Your task to perform on an android device: turn off translation in the chrome app Image 0: 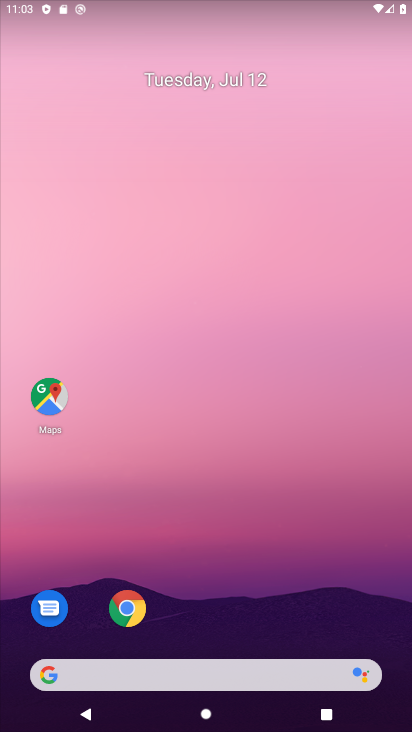
Step 0: click (137, 613)
Your task to perform on an android device: turn off translation in the chrome app Image 1: 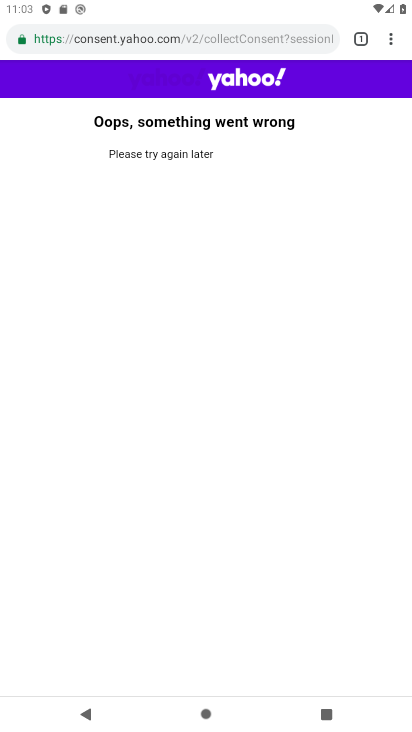
Step 1: click (400, 46)
Your task to perform on an android device: turn off translation in the chrome app Image 2: 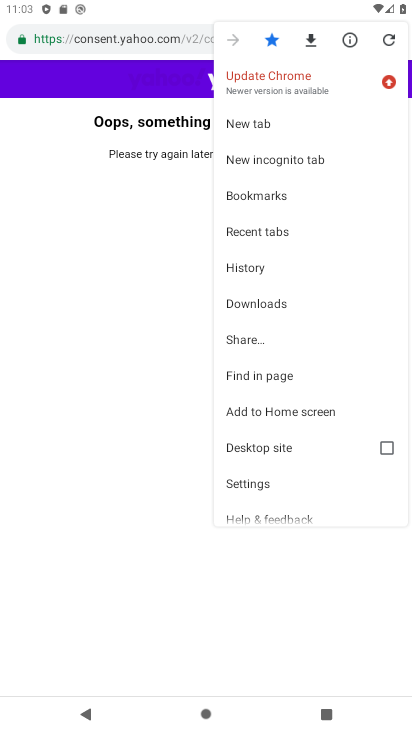
Step 2: click (250, 489)
Your task to perform on an android device: turn off translation in the chrome app Image 3: 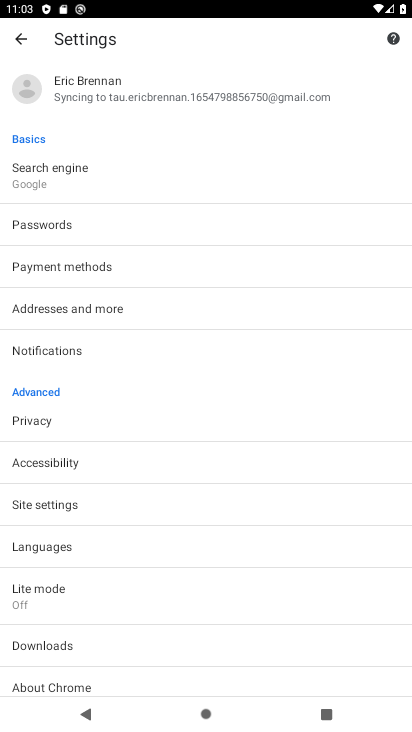
Step 3: click (105, 547)
Your task to perform on an android device: turn off translation in the chrome app Image 4: 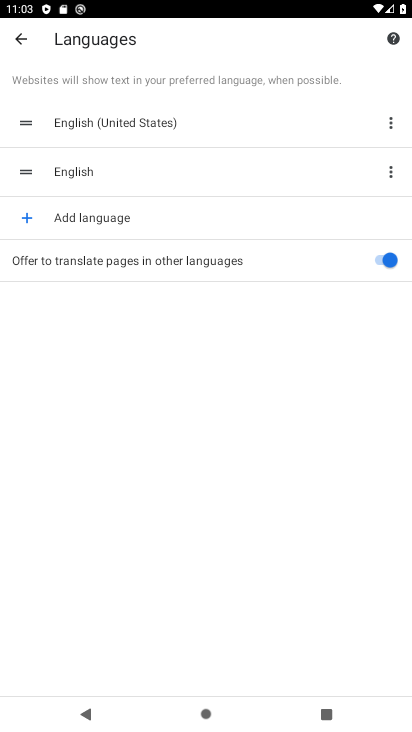
Step 4: click (388, 257)
Your task to perform on an android device: turn off translation in the chrome app Image 5: 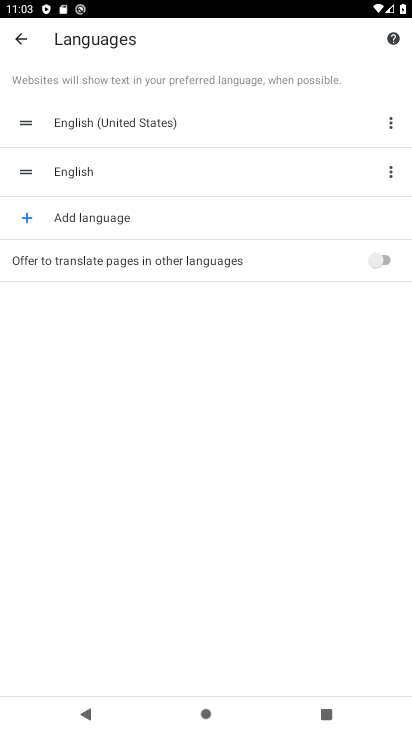
Step 5: task complete